Your task to perform on an android device: Open the calendar and show me this week's events? Image 0: 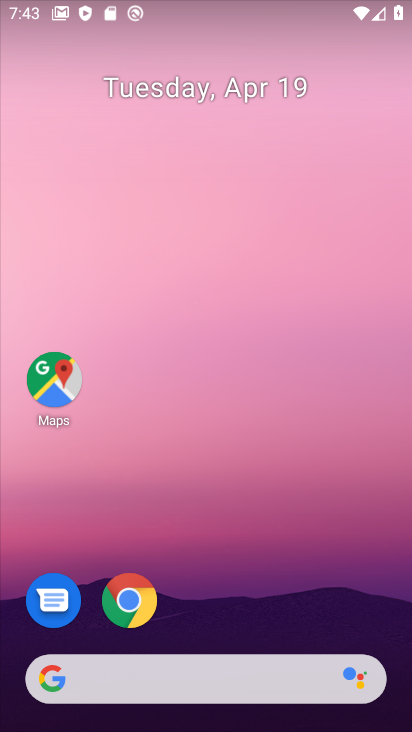
Step 0: drag from (292, 620) to (233, 108)
Your task to perform on an android device: Open the calendar and show me this week's events? Image 1: 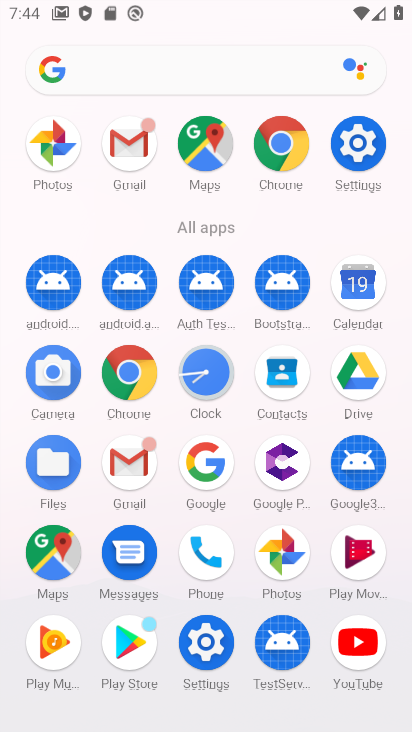
Step 1: click (364, 292)
Your task to perform on an android device: Open the calendar and show me this week's events? Image 2: 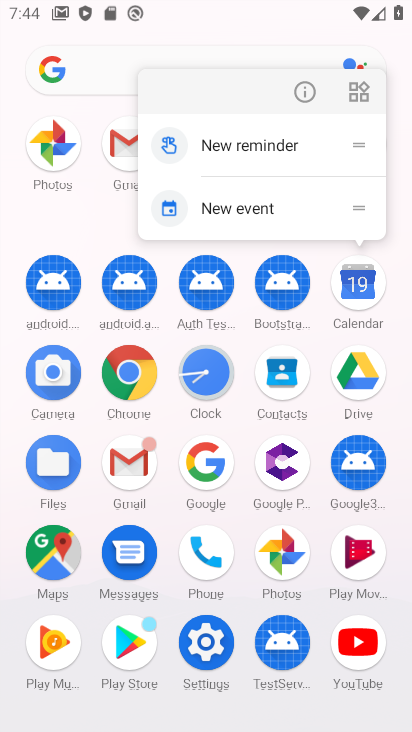
Step 2: click (358, 296)
Your task to perform on an android device: Open the calendar and show me this week's events? Image 3: 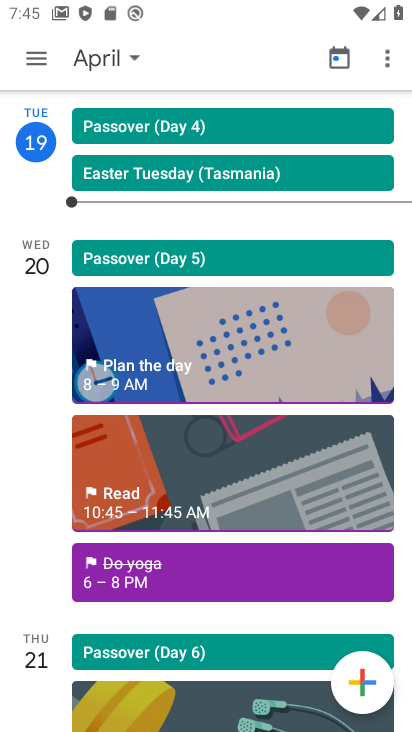
Step 3: click (82, 261)
Your task to perform on an android device: Open the calendar and show me this week's events? Image 4: 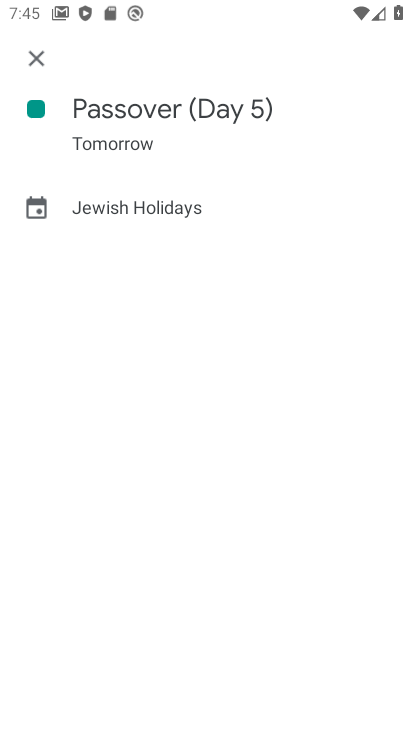
Step 4: task complete